Your task to perform on an android device: turn on javascript in the chrome app Image 0: 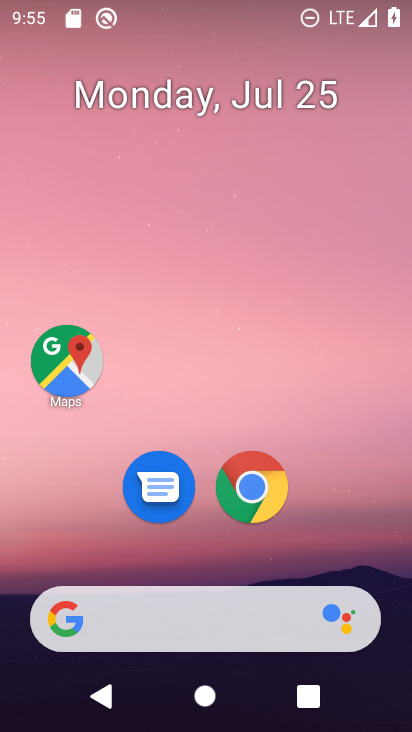
Step 0: click (256, 484)
Your task to perform on an android device: turn on javascript in the chrome app Image 1: 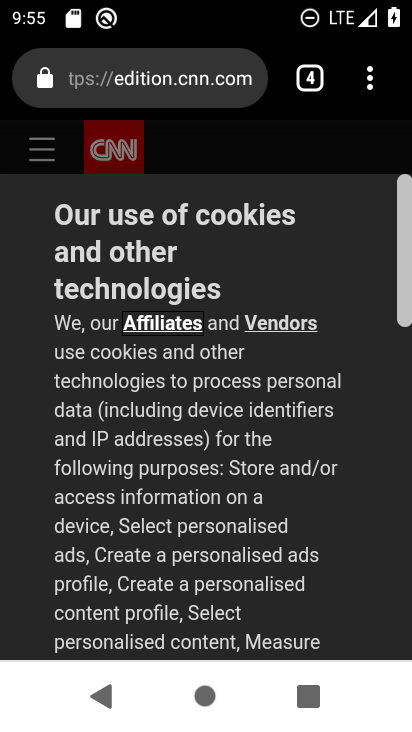
Step 1: drag from (367, 71) to (110, 540)
Your task to perform on an android device: turn on javascript in the chrome app Image 2: 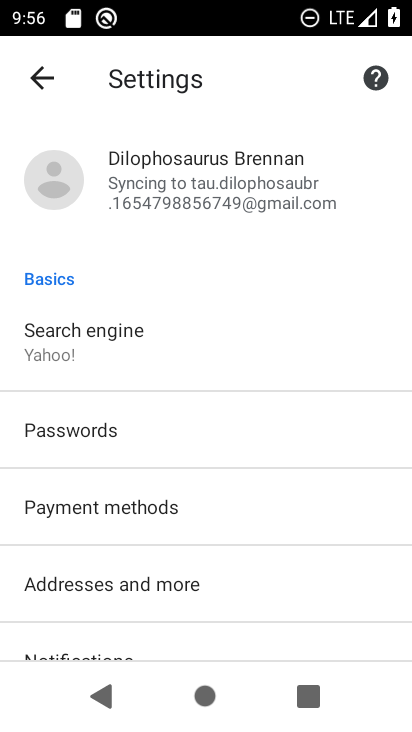
Step 2: drag from (153, 639) to (253, 105)
Your task to perform on an android device: turn on javascript in the chrome app Image 3: 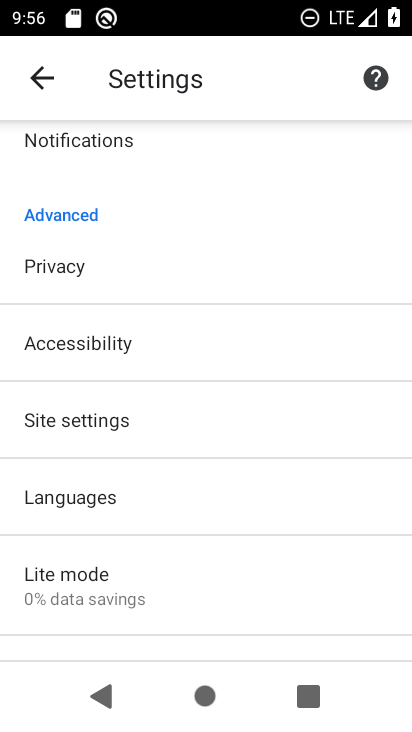
Step 3: click (84, 425)
Your task to perform on an android device: turn on javascript in the chrome app Image 4: 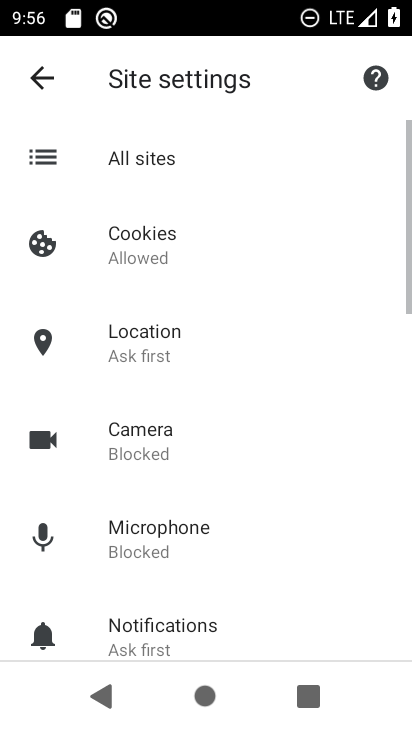
Step 4: drag from (189, 588) to (310, 77)
Your task to perform on an android device: turn on javascript in the chrome app Image 5: 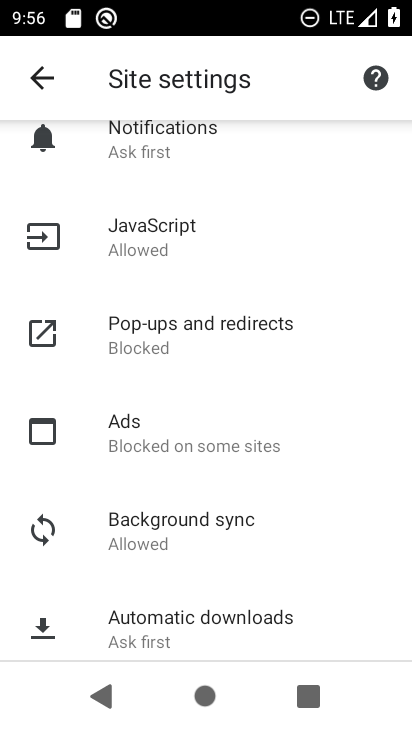
Step 5: click (156, 240)
Your task to perform on an android device: turn on javascript in the chrome app Image 6: 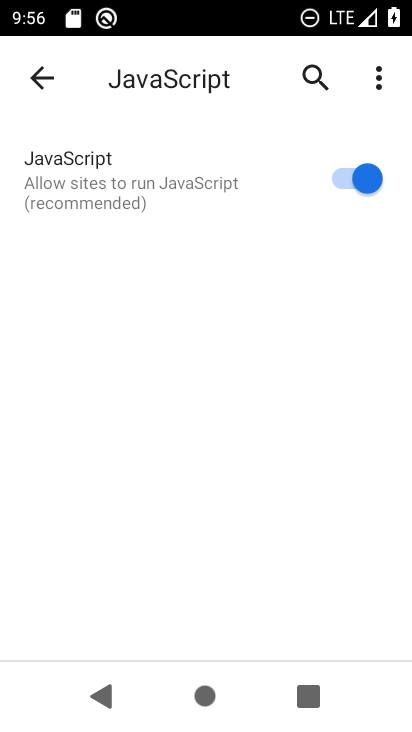
Step 6: task complete